Your task to perform on an android device: Do I have any events today? Image 0: 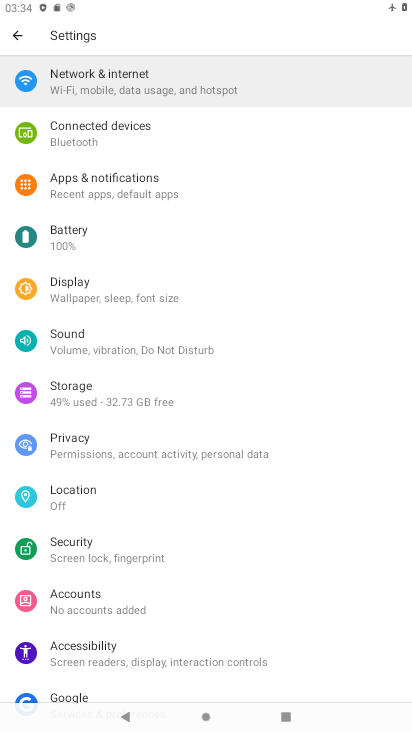
Step 0: press home button
Your task to perform on an android device: Do I have any events today? Image 1: 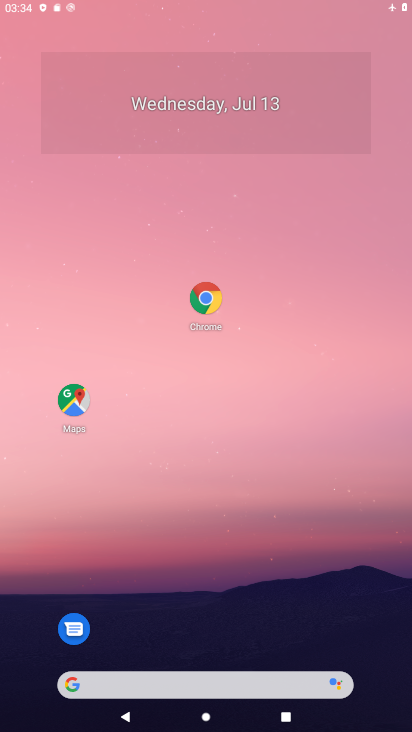
Step 1: drag from (181, 677) to (199, 248)
Your task to perform on an android device: Do I have any events today? Image 2: 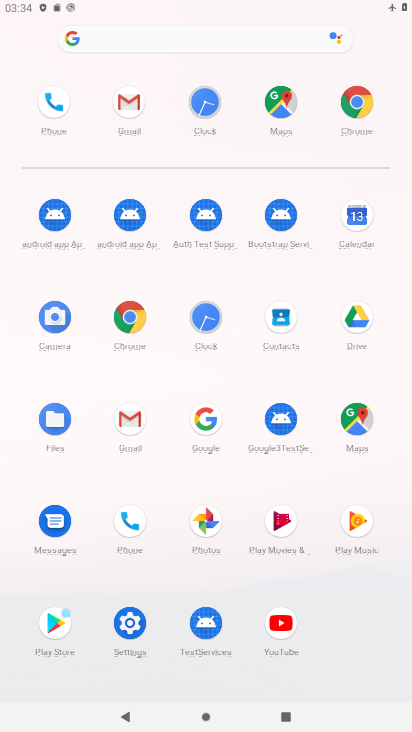
Step 2: click (349, 209)
Your task to perform on an android device: Do I have any events today? Image 3: 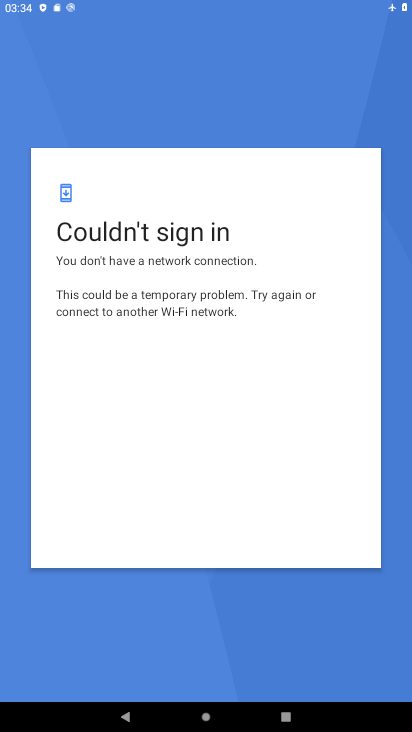
Step 3: task complete